Your task to perform on an android device: make emails show in primary in the gmail app Image 0: 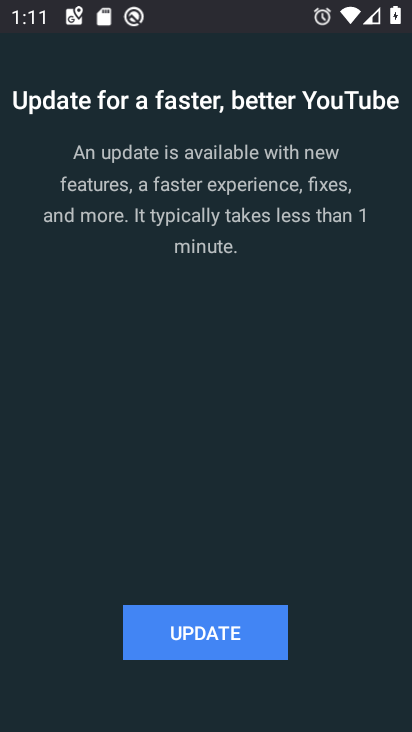
Step 0: press home button
Your task to perform on an android device: make emails show in primary in the gmail app Image 1: 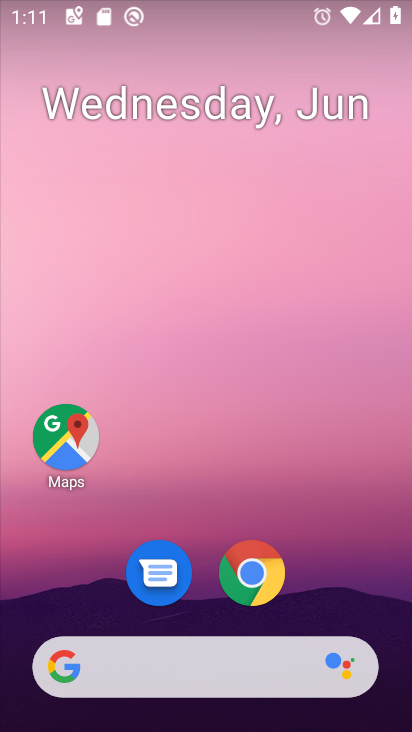
Step 1: drag from (204, 618) to (271, 10)
Your task to perform on an android device: make emails show in primary in the gmail app Image 2: 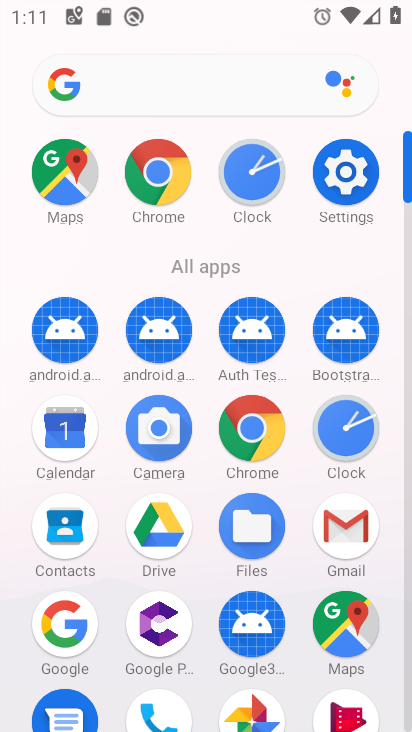
Step 2: click (354, 523)
Your task to perform on an android device: make emails show in primary in the gmail app Image 3: 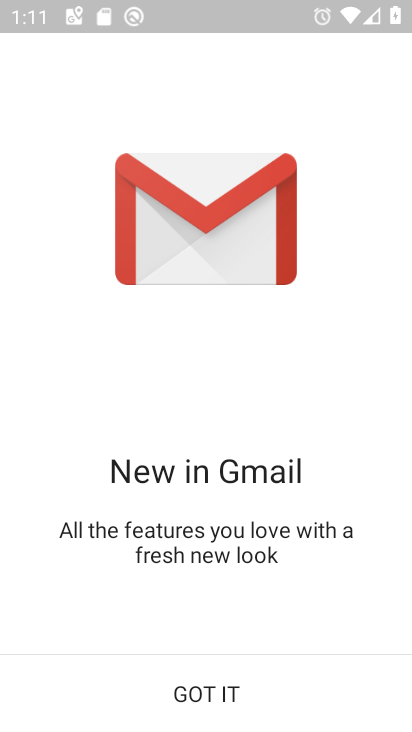
Step 3: click (212, 657)
Your task to perform on an android device: make emails show in primary in the gmail app Image 4: 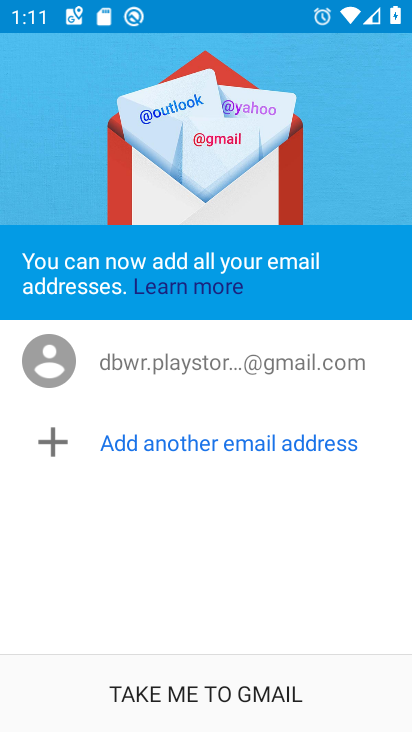
Step 4: click (176, 706)
Your task to perform on an android device: make emails show in primary in the gmail app Image 5: 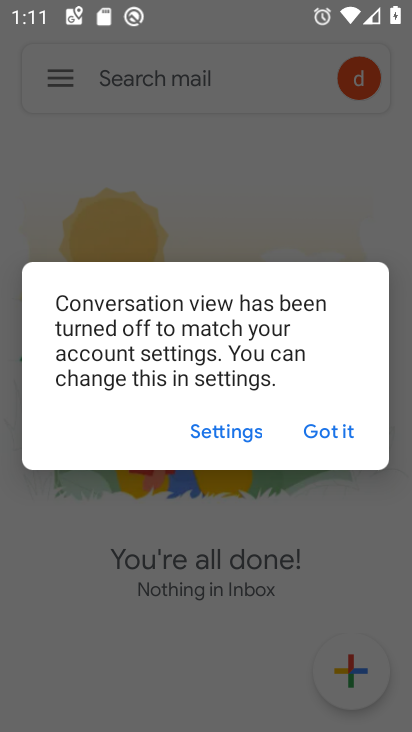
Step 5: click (312, 434)
Your task to perform on an android device: make emails show in primary in the gmail app Image 6: 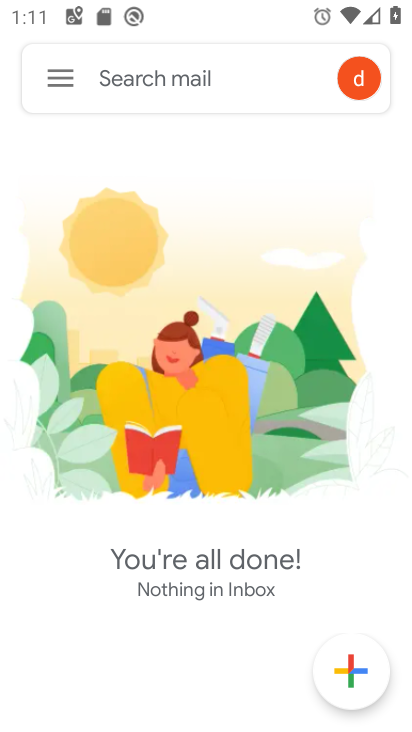
Step 6: click (71, 74)
Your task to perform on an android device: make emails show in primary in the gmail app Image 7: 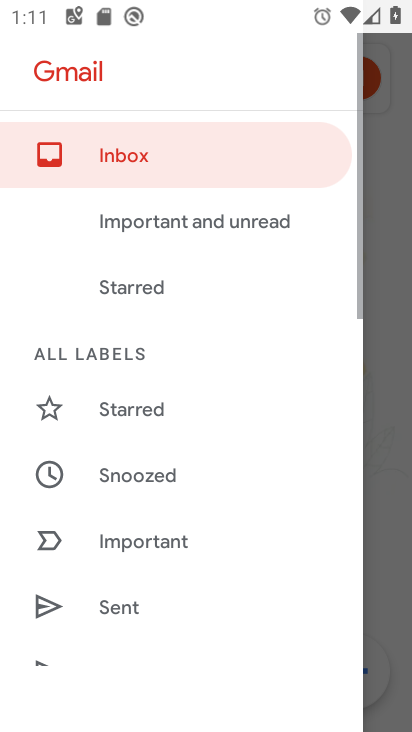
Step 7: drag from (177, 620) to (216, 98)
Your task to perform on an android device: make emails show in primary in the gmail app Image 8: 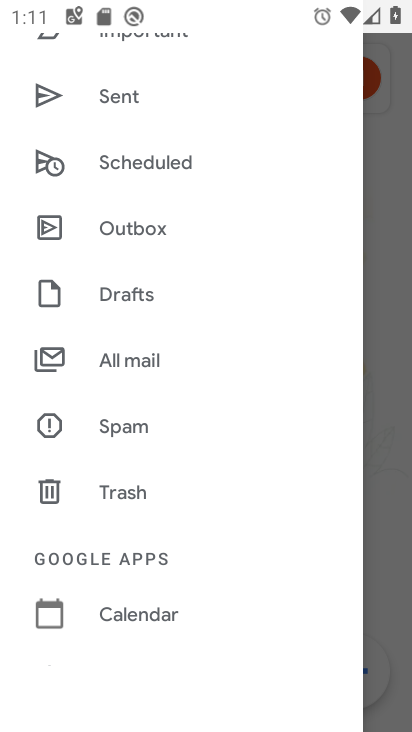
Step 8: drag from (172, 614) to (259, 43)
Your task to perform on an android device: make emails show in primary in the gmail app Image 9: 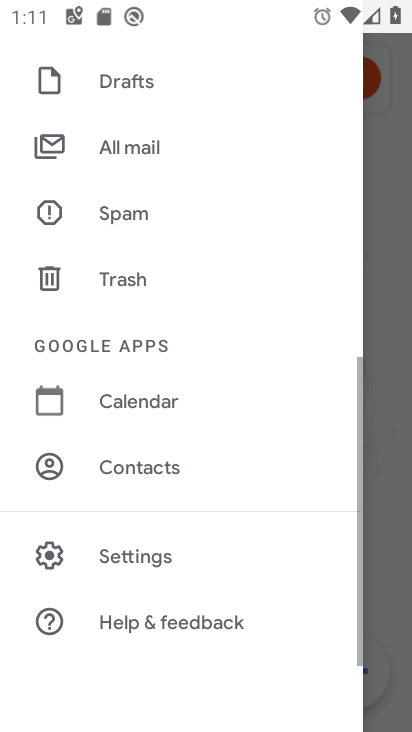
Step 9: click (130, 558)
Your task to perform on an android device: make emails show in primary in the gmail app Image 10: 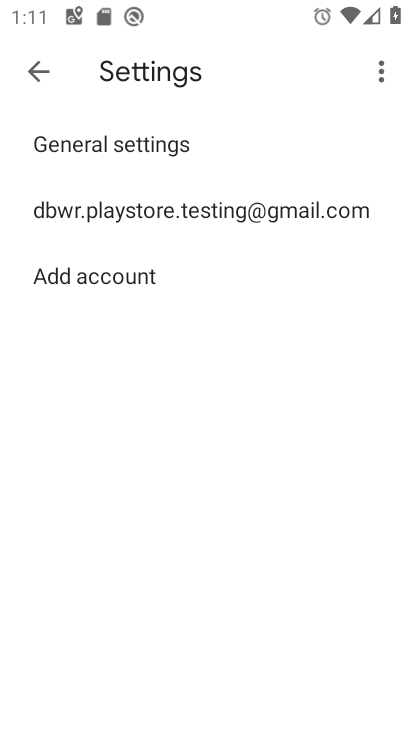
Step 10: click (117, 207)
Your task to perform on an android device: make emails show in primary in the gmail app Image 11: 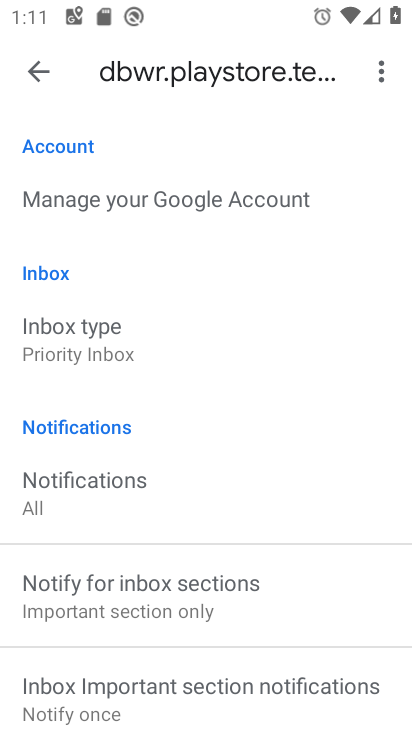
Step 11: task complete